Your task to perform on an android device: What is the recent news? Image 0: 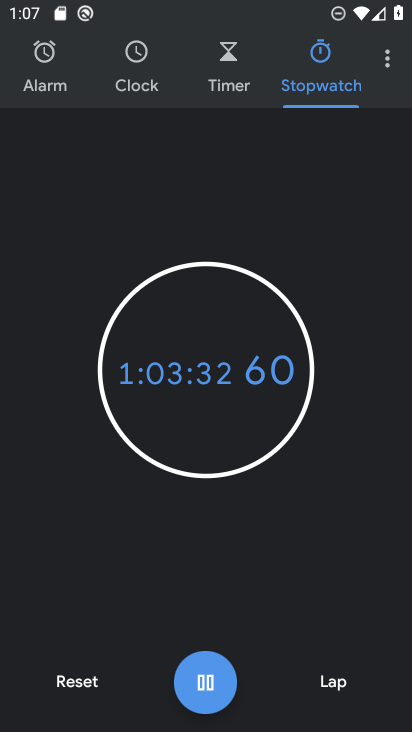
Step 0: press home button
Your task to perform on an android device: What is the recent news? Image 1: 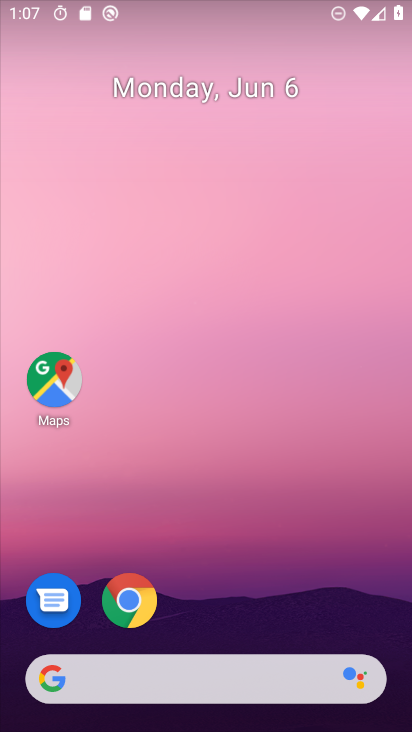
Step 1: drag from (208, 615) to (219, 214)
Your task to perform on an android device: What is the recent news? Image 2: 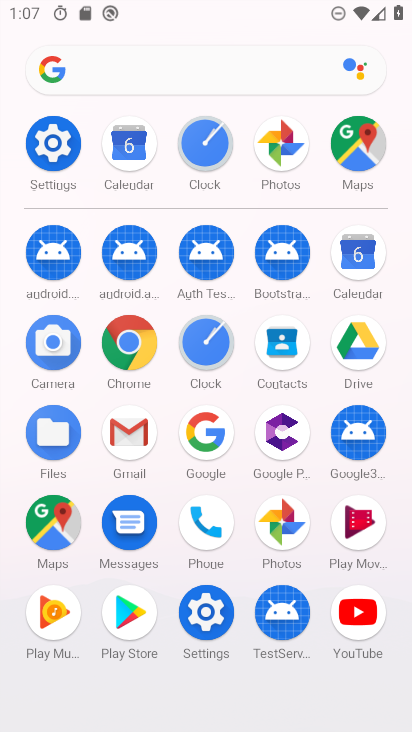
Step 2: click (217, 427)
Your task to perform on an android device: What is the recent news? Image 3: 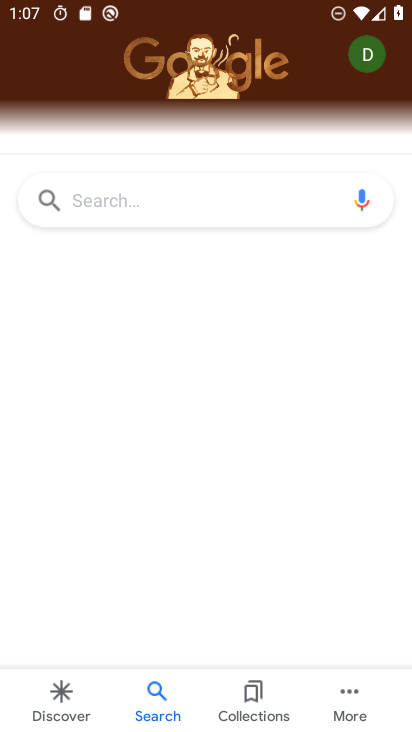
Step 3: click (147, 189)
Your task to perform on an android device: What is the recent news? Image 4: 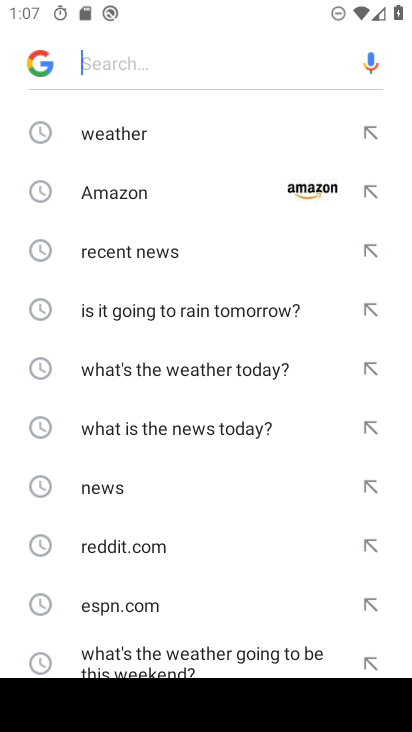
Step 4: click (178, 249)
Your task to perform on an android device: What is the recent news? Image 5: 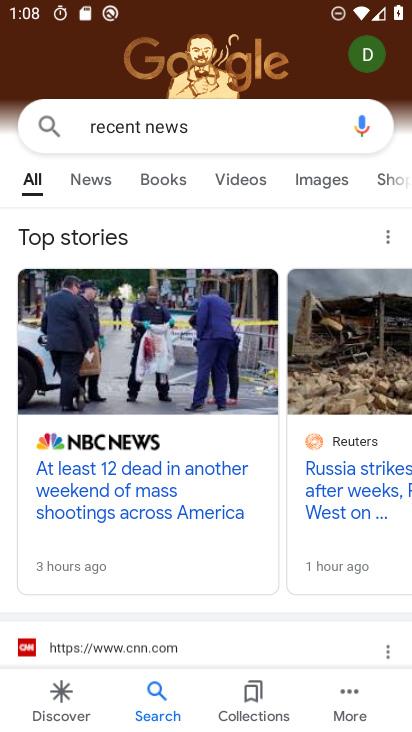
Step 5: click (97, 171)
Your task to perform on an android device: What is the recent news? Image 6: 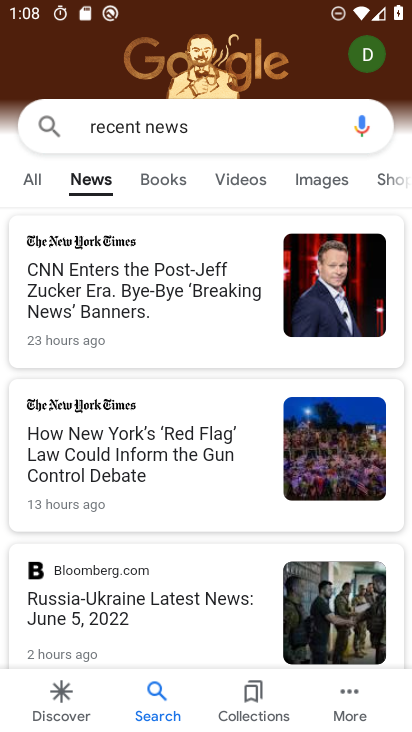
Step 6: task complete